Your task to perform on an android device: open chrome privacy settings Image 0: 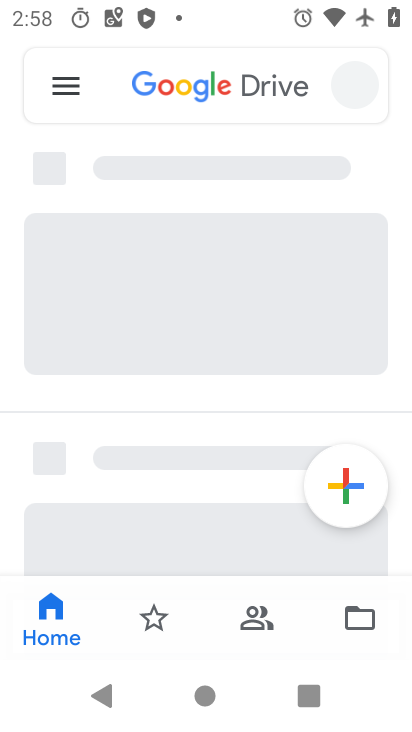
Step 0: press home button
Your task to perform on an android device: open chrome privacy settings Image 1: 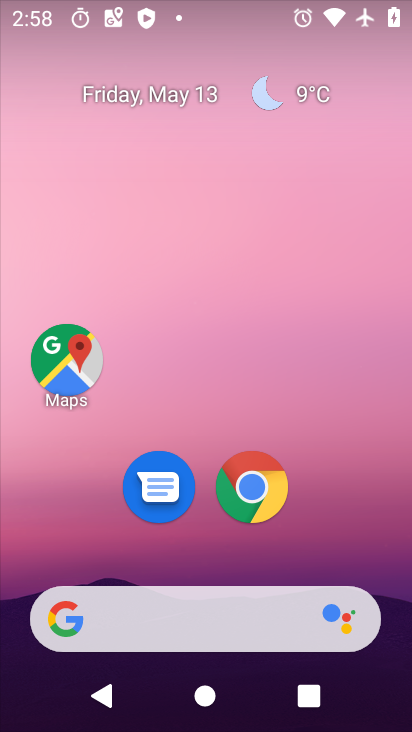
Step 1: click (250, 494)
Your task to perform on an android device: open chrome privacy settings Image 2: 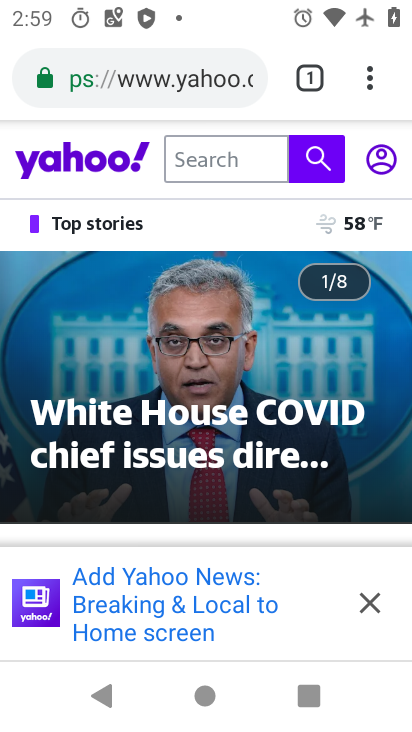
Step 2: click (364, 77)
Your task to perform on an android device: open chrome privacy settings Image 3: 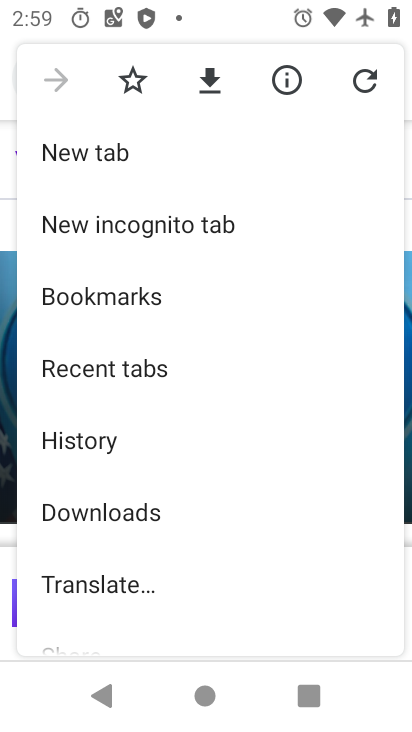
Step 3: drag from (133, 567) to (175, 173)
Your task to perform on an android device: open chrome privacy settings Image 4: 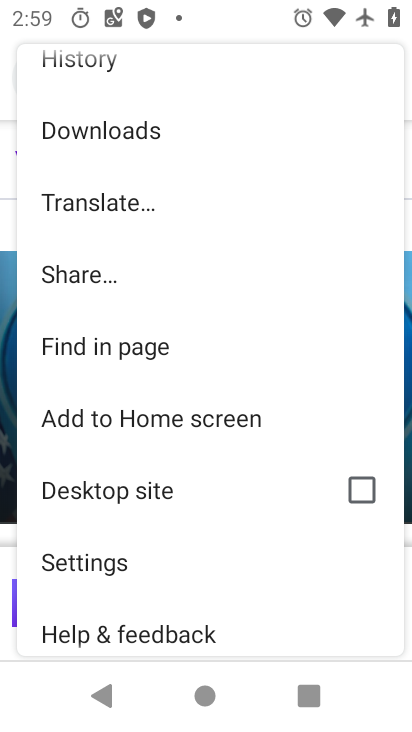
Step 4: click (85, 570)
Your task to perform on an android device: open chrome privacy settings Image 5: 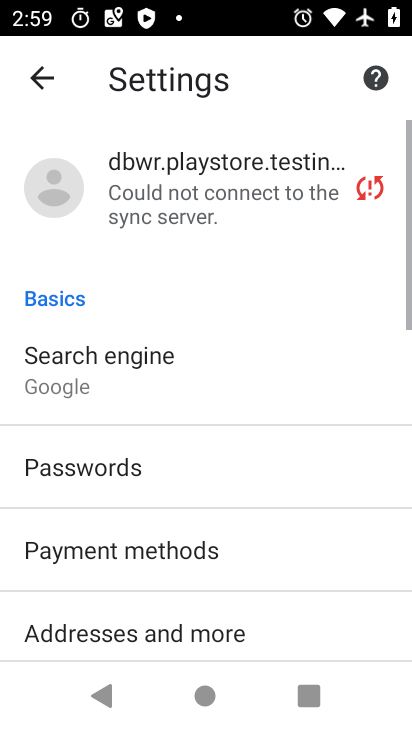
Step 5: drag from (179, 539) to (162, 123)
Your task to perform on an android device: open chrome privacy settings Image 6: 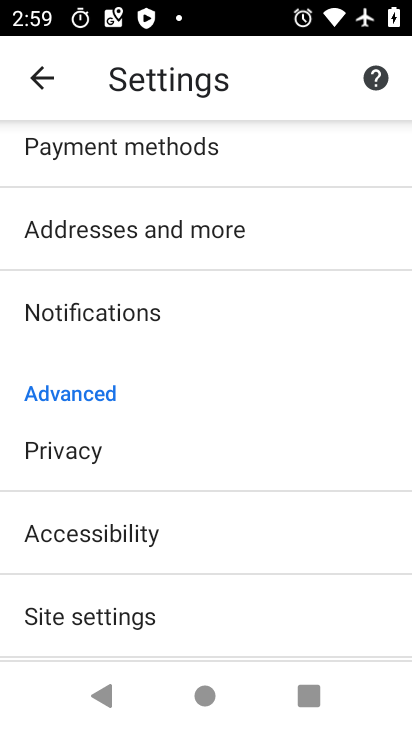
Step 6: click (86, 453)
Your task to perform on an android device: open chrome privacy settings Image 7: 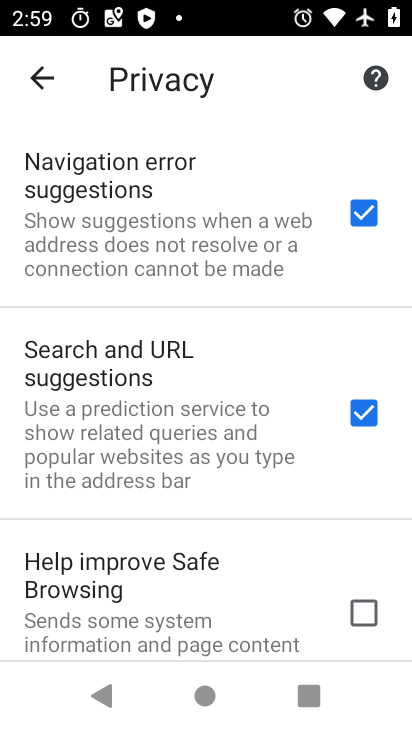
Step 7: task complete